Your task to perform on an android device: When is my next meeting? Image 0: 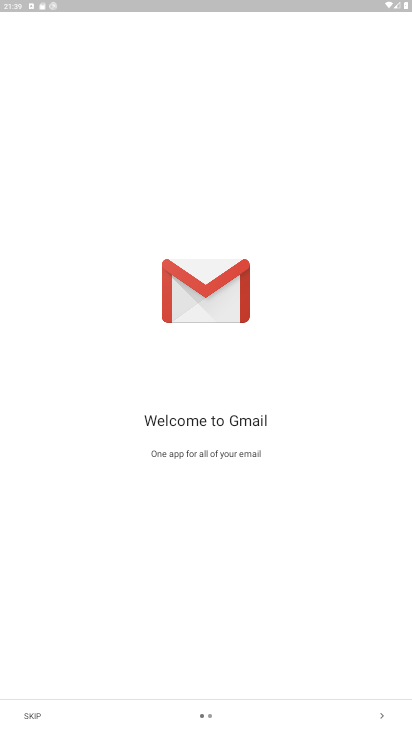
Step 0: press home button
Your task to perform on an android device: When is my next meeting? Image 1: 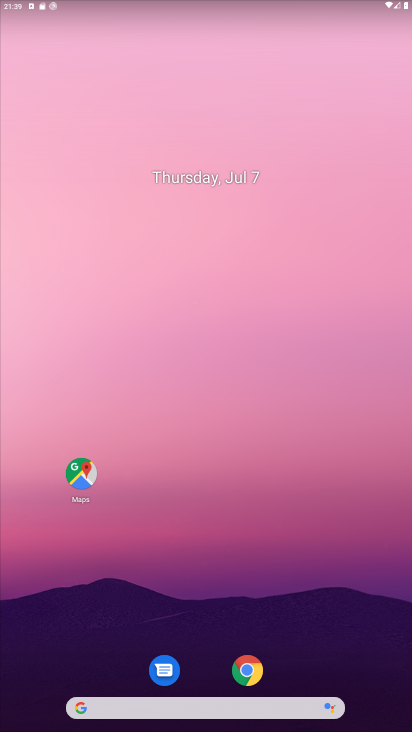
Step 1: drag from (27, 603) to (290, 0)
Your task to perform on an android device: When is my next meeting? Image 2: 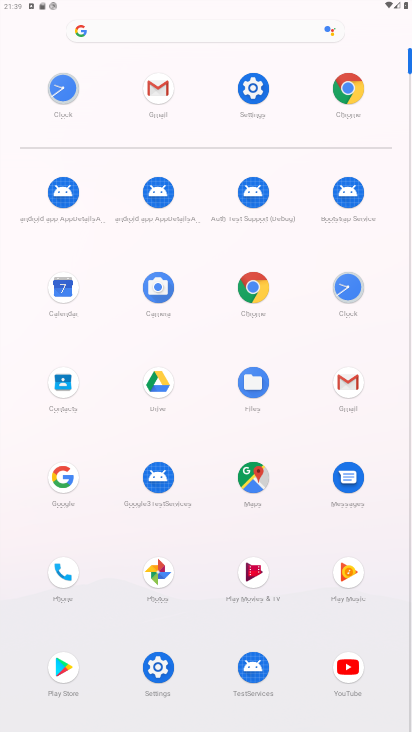
Step 2: click (70, 298)
Your task to perform on an android device: When is my next meeting? Image 3: 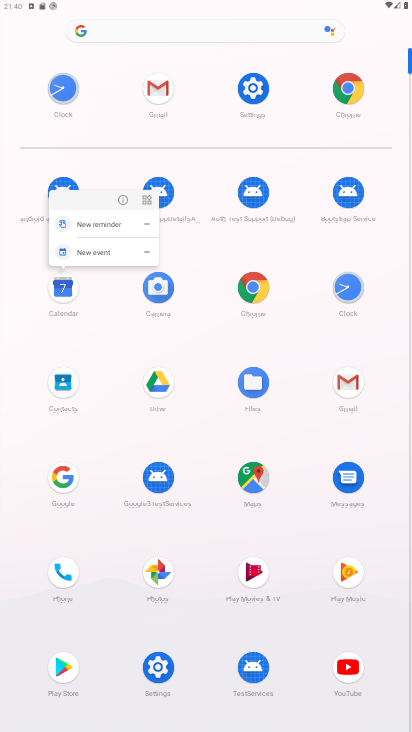
Step 3: click (59, 286)
Your task to perform on an android device: When is my next meeting? Image 4: 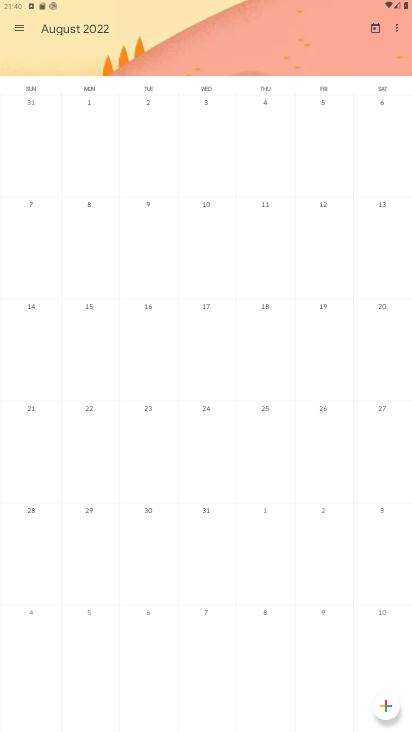
Step 4: task complete